Your task to perform on an android device: change the clock display to show seconds Image 0: 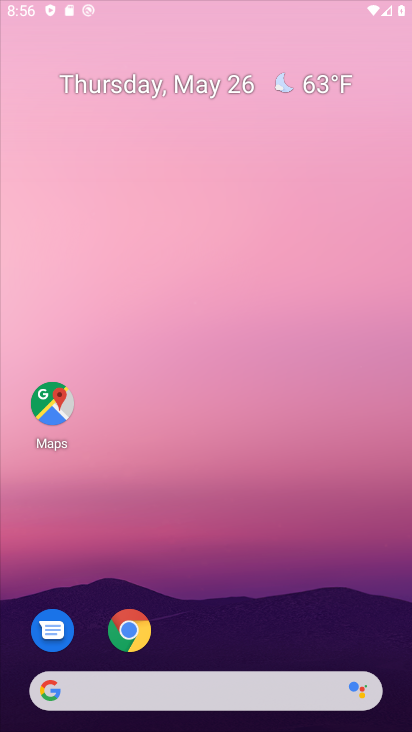
Step 0: drag from (294, 688) to (245, 129)
Your task to perform on an android device: change the clock display to show seconds Image 1: 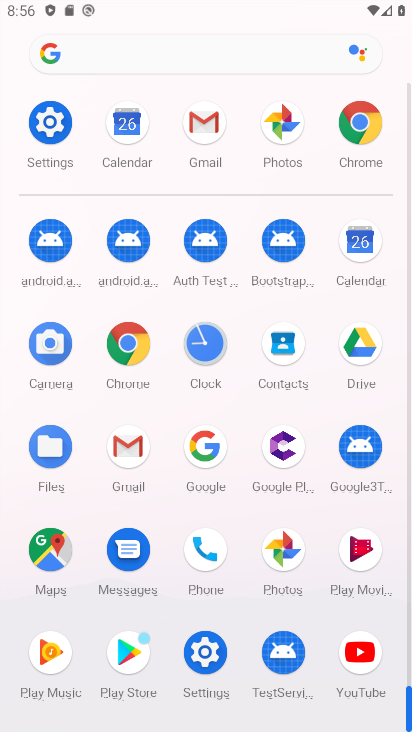
Step 1: click (190, 347)
Your task to perform on an android device: change the clock display to show seconds Image 2: 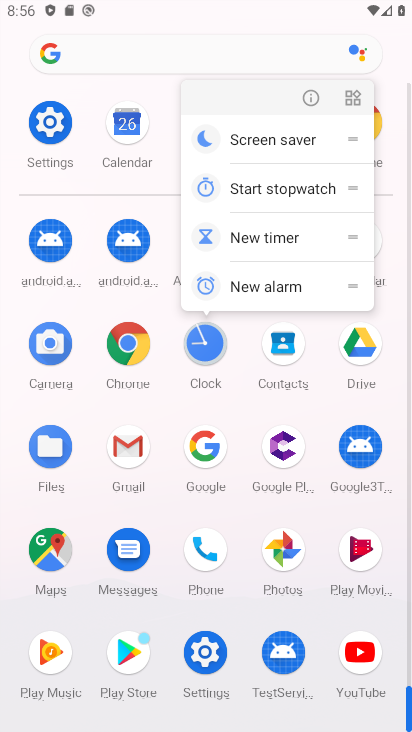
Step 2: click (275, 195)
Your task to perform on an android device: change the clock display to show seconds Image 3: 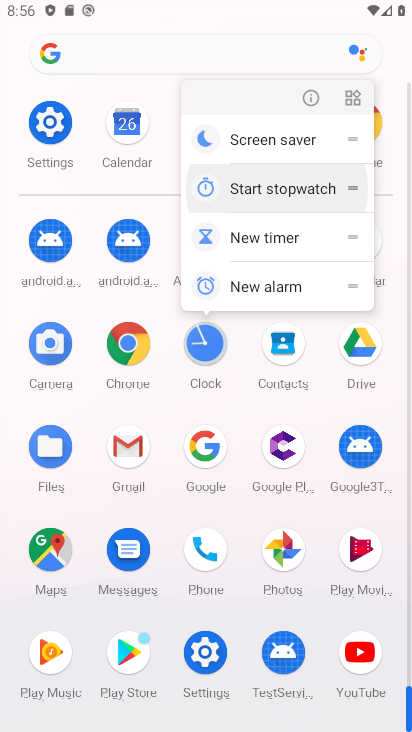
Step 3: click (275, 195)
Your task to perform on an android device: change the clock display to show seconds Image 4: 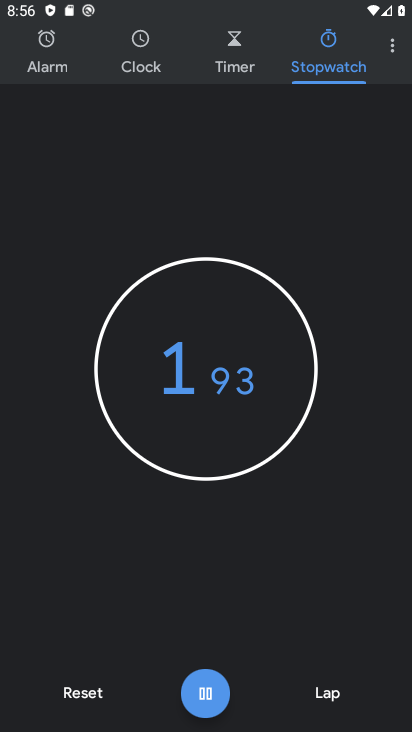
Step 4: click (382, 54)
Your task to perform on an android device: change the clock display to show seconds Image 5: 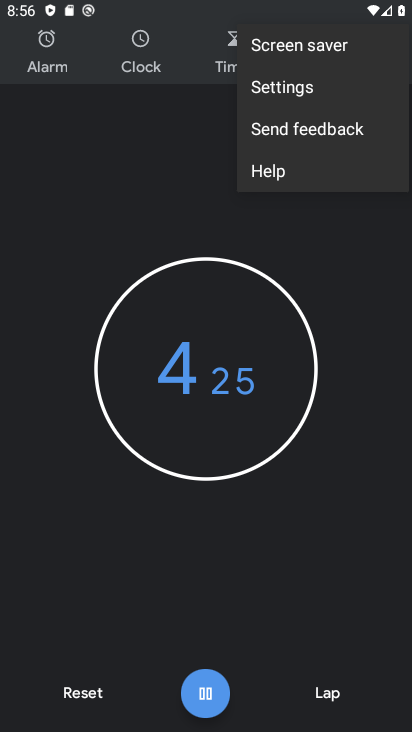
Step 5: click (274, 66)
Your task to perform on an android device: change the clock display to show seconds Image 6: 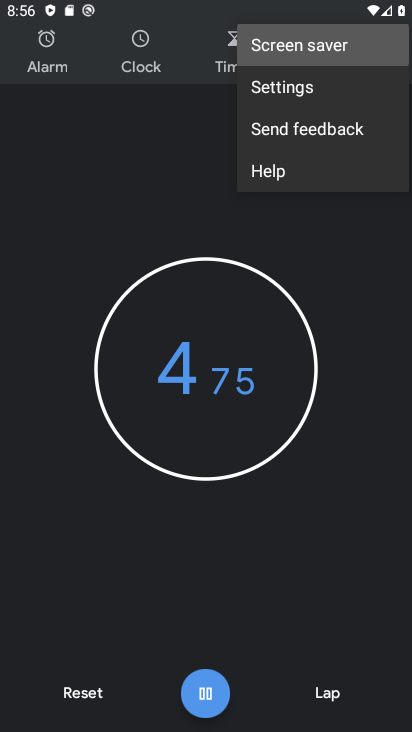
Step 6: click (276, 83)
Your task to perform on an android device: change the clock display to show seconds Image 7: 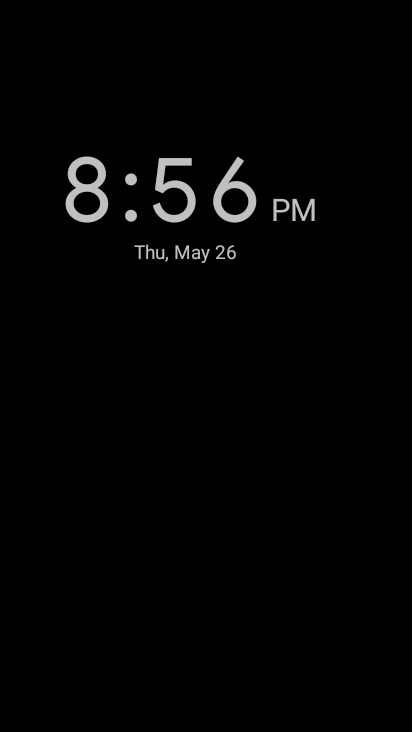
Step 7: drag from (208, 467) to (242, 59)
Your task to perform on an android device: change the clock display to show seconds Image 8: 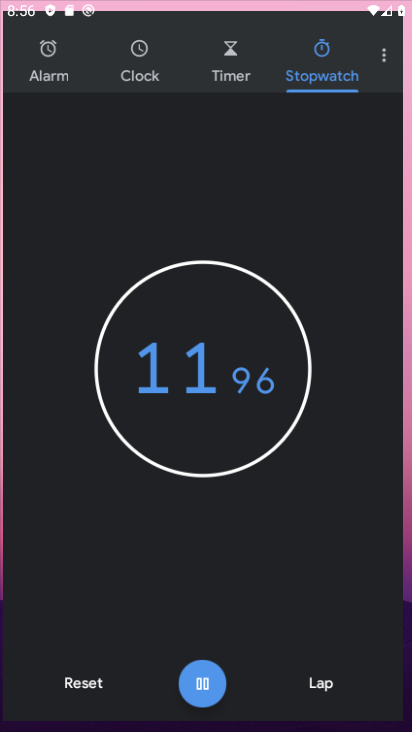
Step 8: drag from (291, 379) to (286, 27)
Your task to perform on an android device: change the clock display to show seconds Image 9: 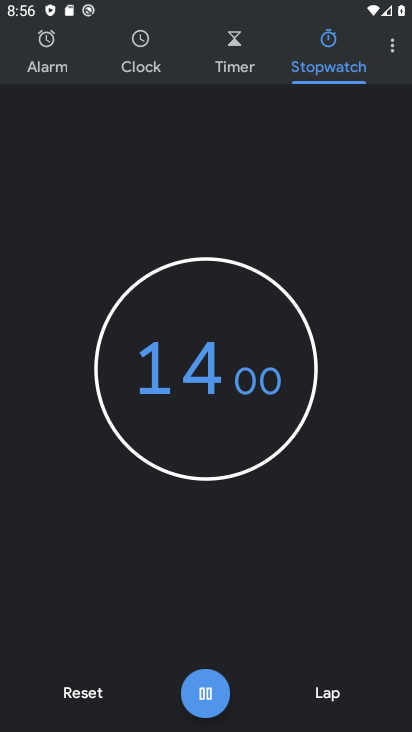
Step 9: click (207, 696)
Your task to perform on an android device: change the clock display to show seconds Image 10: 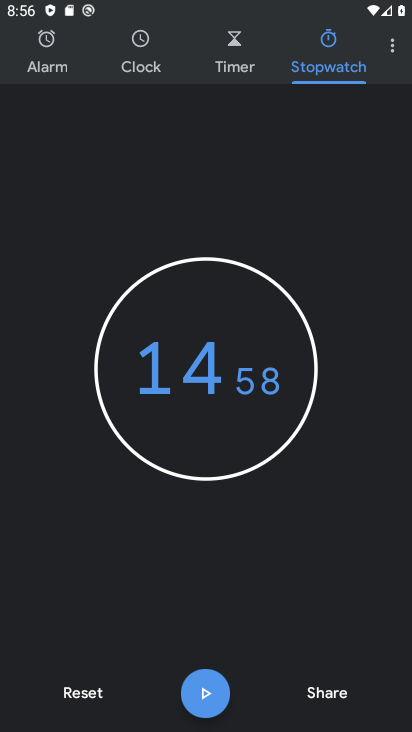
Step 10: click (396, 45)
Your task to perform on an android device: change the clock display to show seconds Image 11: 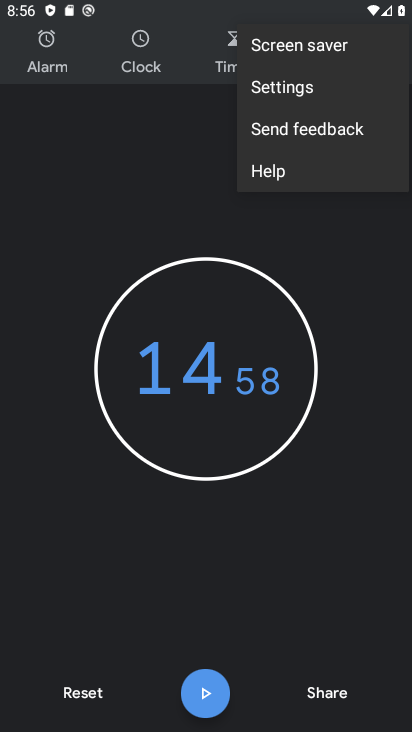
Step 11: click (273, 80)
Your task to perform on an android device: change the clock display to show seconds Image 12: 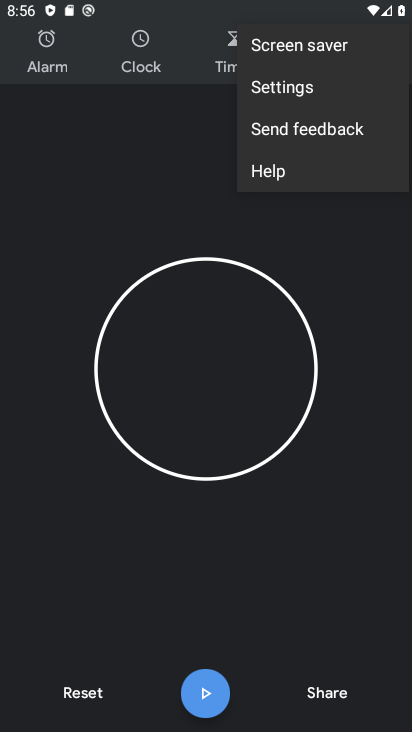
Step 12: click (277, 91)
Your task to perform on an android device: change the clock display to show seconds Image 13: 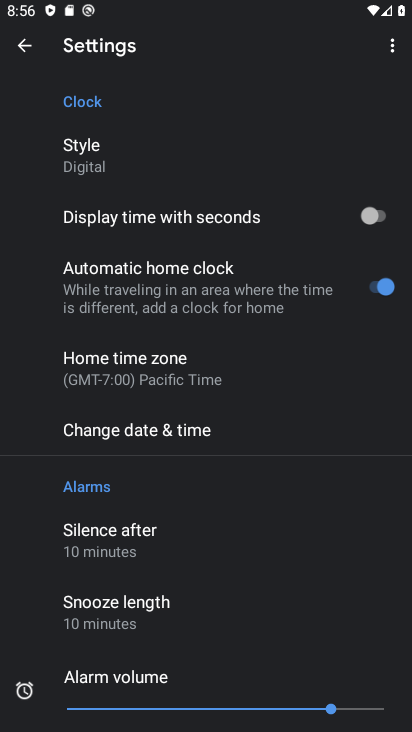
Step 13: click (367, 221)
Your task to perform on an android device: change the clock display to show seconds Image 14: 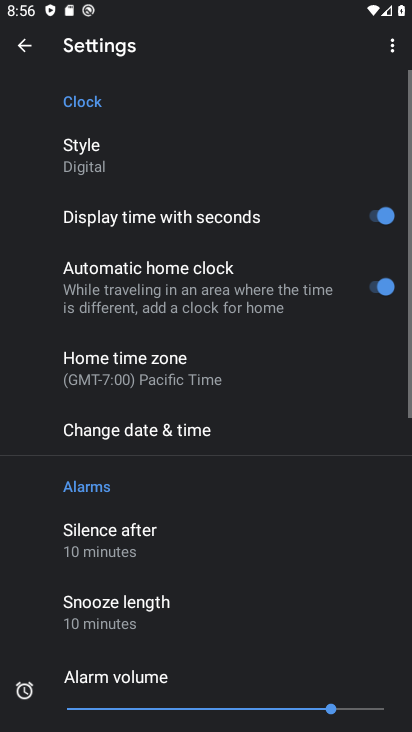
Step 14: task complete